Your task to perform on an android device: open device folders in google photos Image 0: 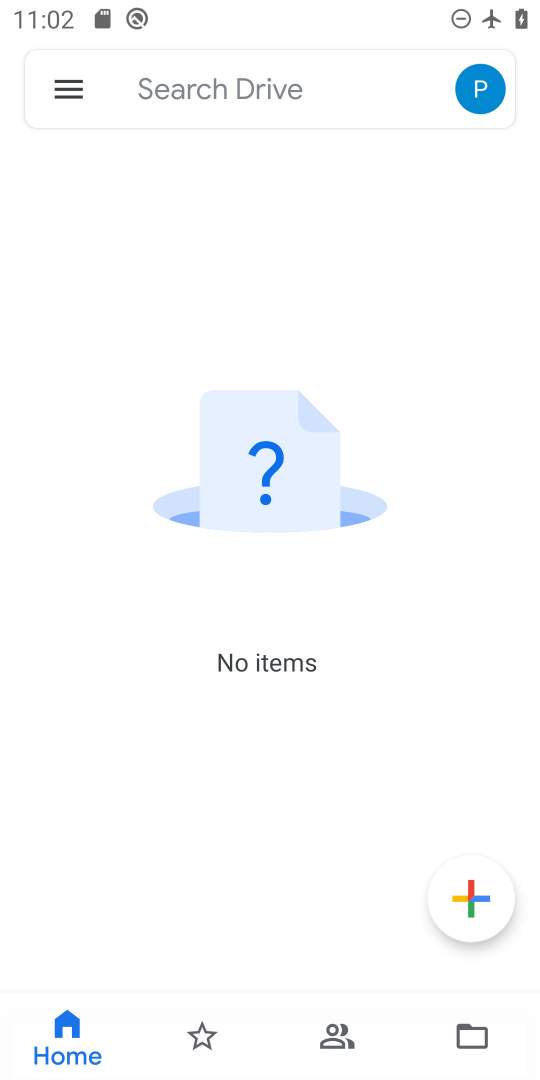
Step 0: press home button
Your task to perform on an android device: open device folders in google photos Image 1: 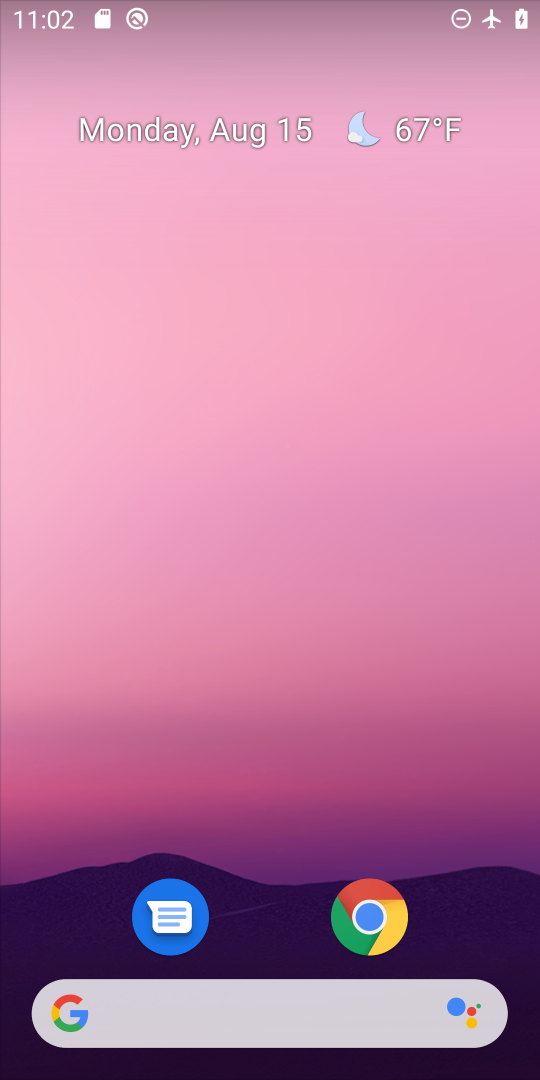
Step 1: drag from (347, 820) to (340, 68)
Your task to perform on an android device: open device folders in google photos Image 2: 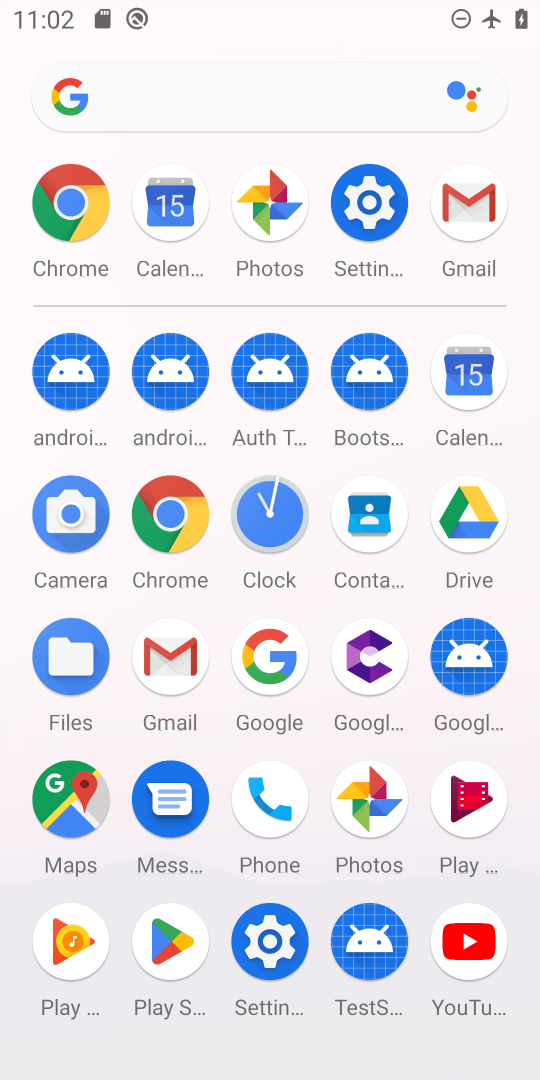
Step 2: click (283, 207)
Your task to perform on an android device: open device folders in google photos Image 3: 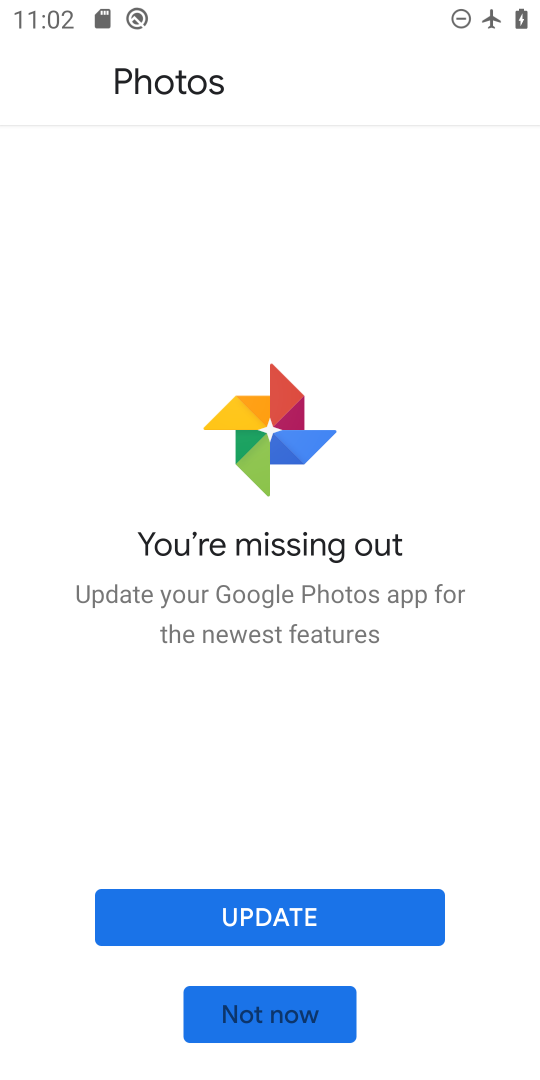
Step 3: click (285, 1020)
Your task to perform on an android device: open device folders in google photos Image 4: 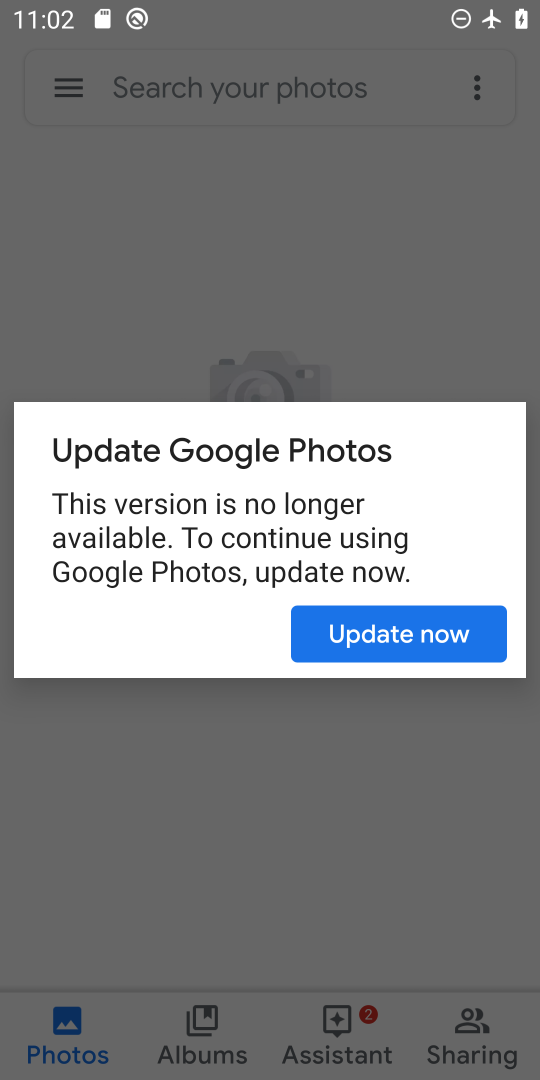
Step 4: click (485, 630)
Your task to perform on an android device: open device folders in google photos Image 5: 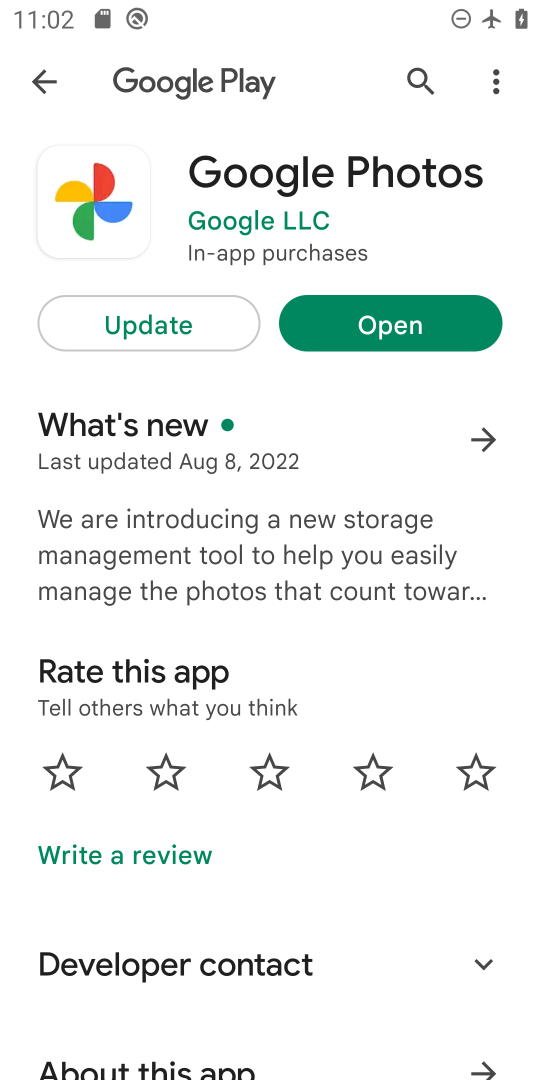
Step 5: click (456, 319)
Your task to perform on an android device: open device folders in google photos Image 6: 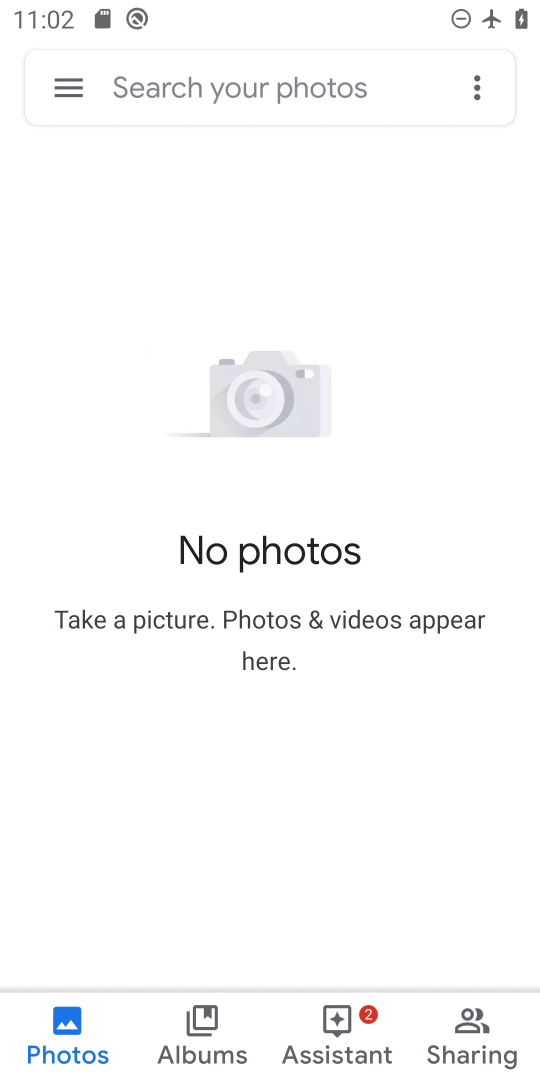
Step 6: click (67, 79)
Your task to perform on an android device: open device folders in google photos Image 7: 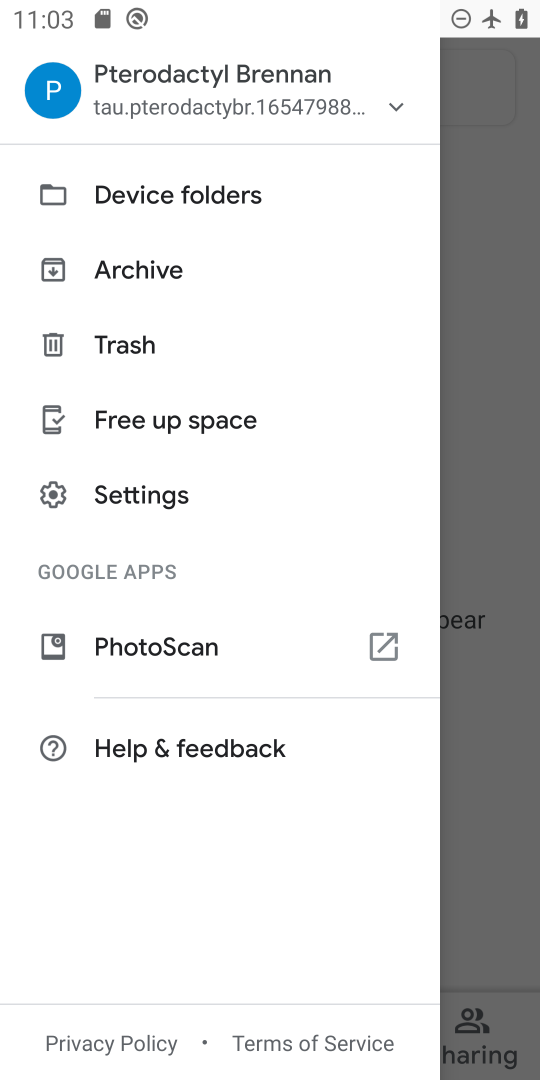
Step 7: click (152, 194)
Your task to perform on an android device: open device folders in google photos Image 8: 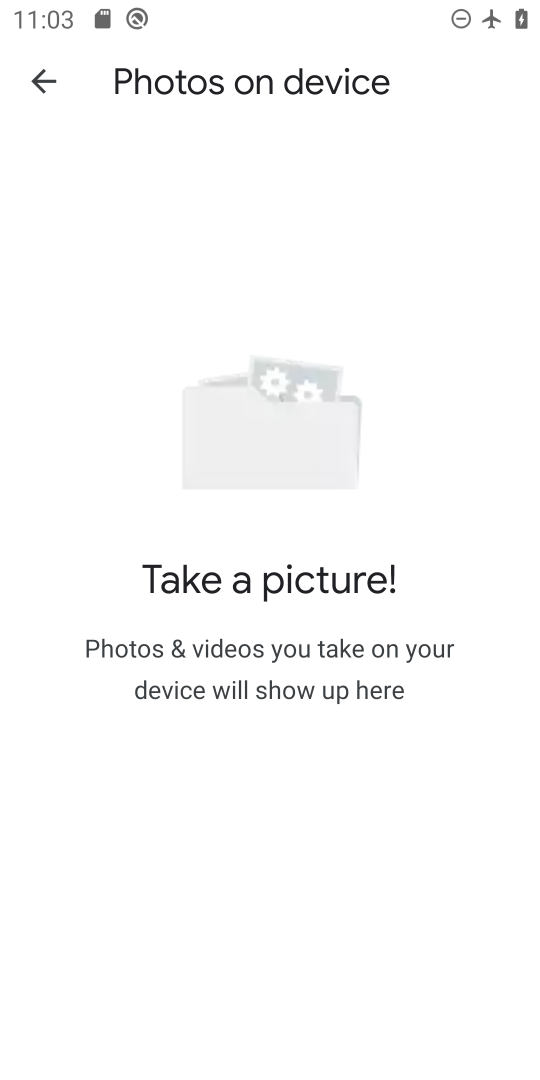
Step 8: task complete